Your task to perform on an android device: Open the calendar and show me this week's events? Image 0: 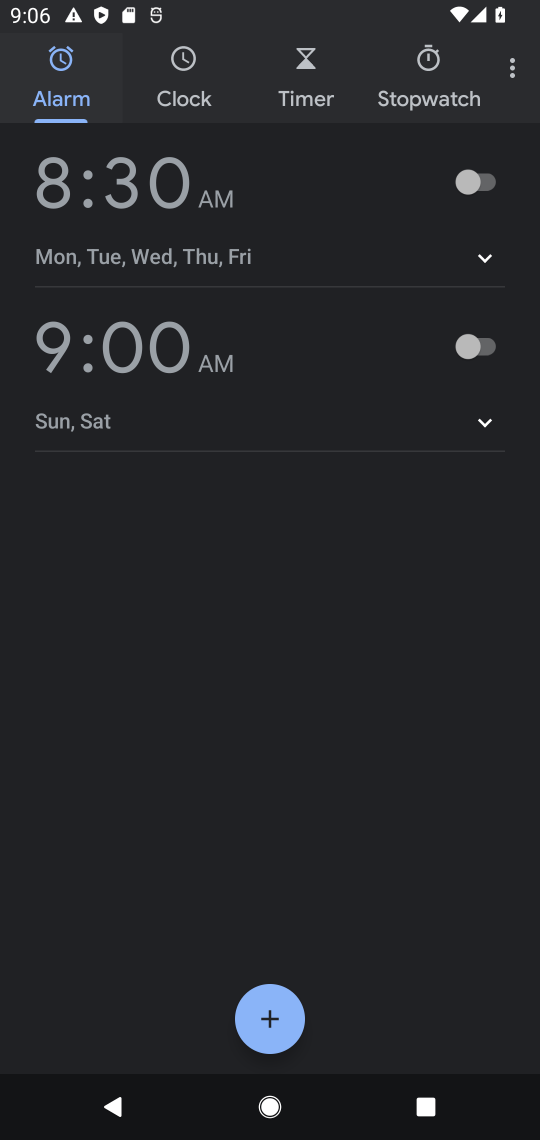
Step 0: press home button
Your task to perform on an android device: Open the calendar and show me this week's events? Image 1: 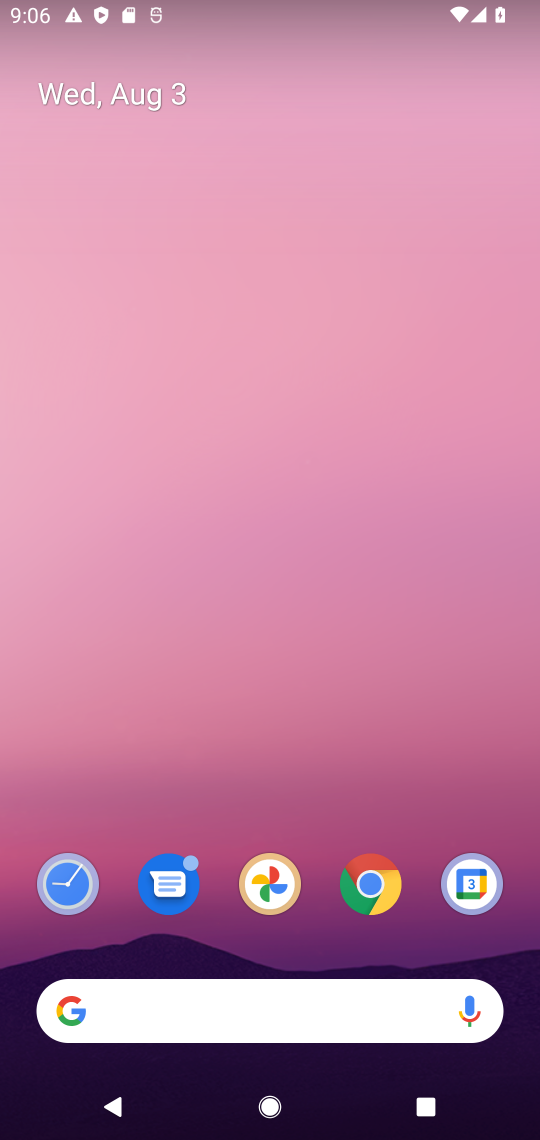
Step 1: click (336, 919)
Your task to perform on an android device: Open the calendar and show me this week's events? Image 2: 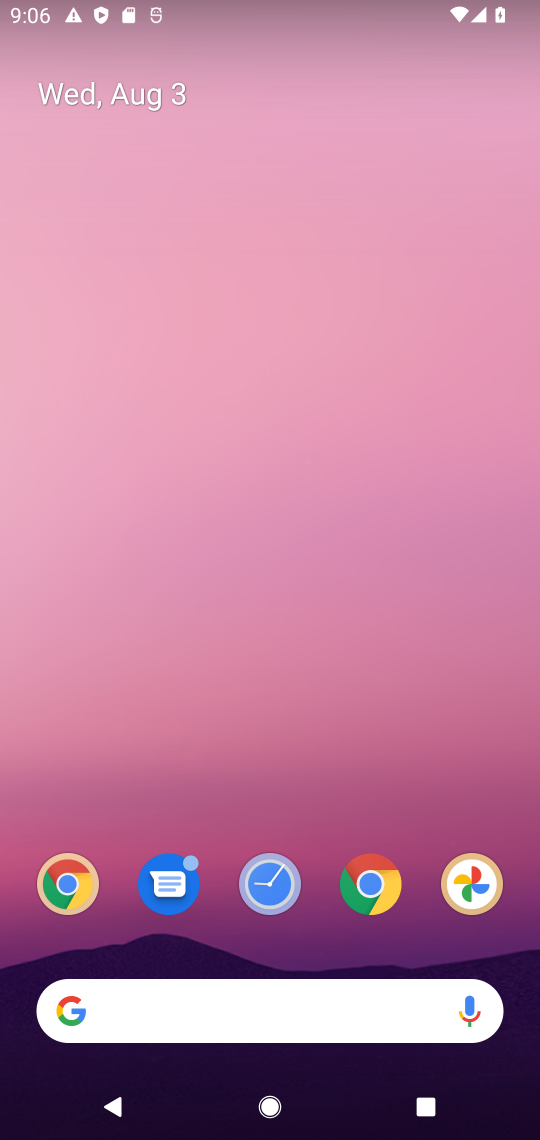
Step 2: drag from (318, 735) to (196, 283)
Your task to perform on an android device: Open the calendar and show me this week's events? Image 3: 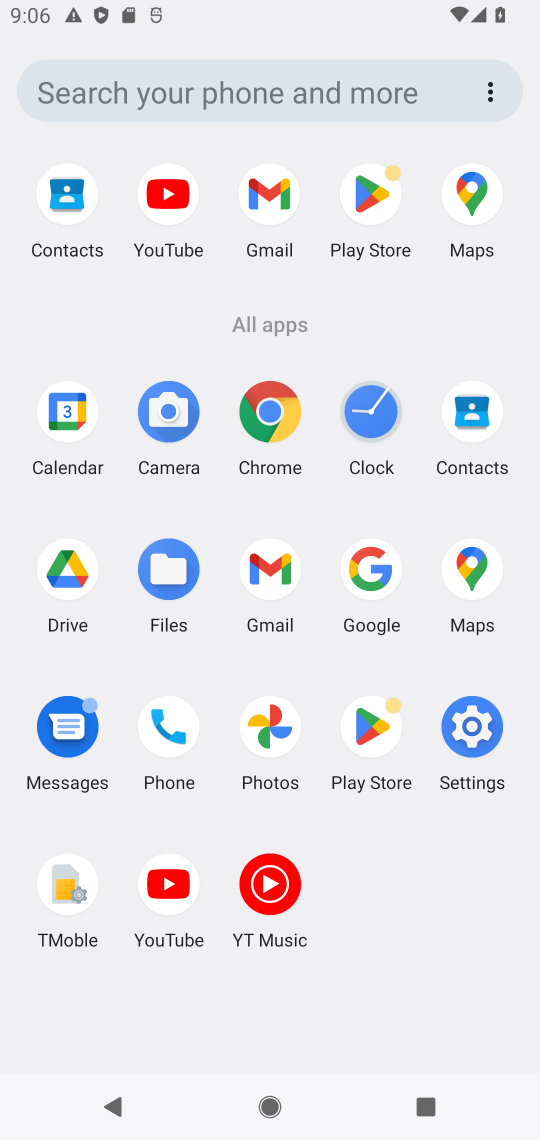
Step 3: click (72, 404)
Your task to perform on an android device: Open the calendar and show me this week's events? Image 4: 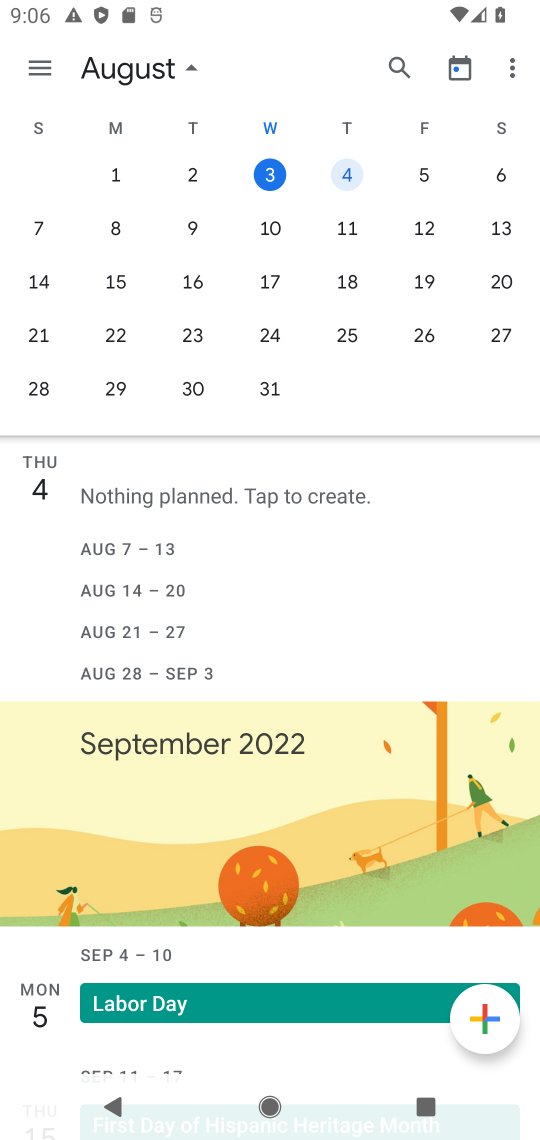
Step 4: click (268, 228)
Your task to perform on an android device: Open the calendar and show me this week's events? Image 5: 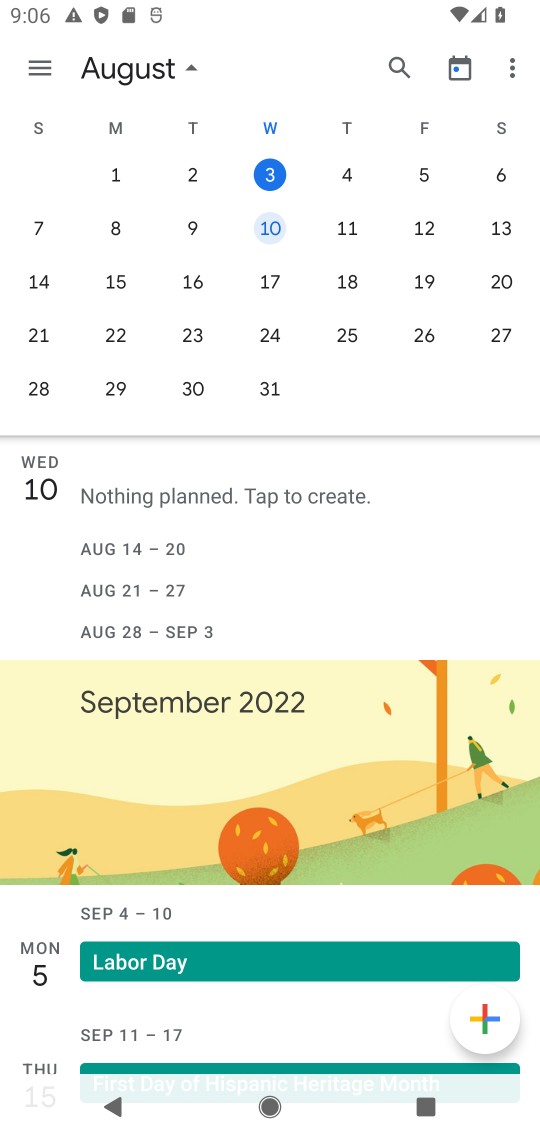
Step 5: task complete